Your task to perform on an android device: Open Google Chrome and open the bookmarks view Image 0: 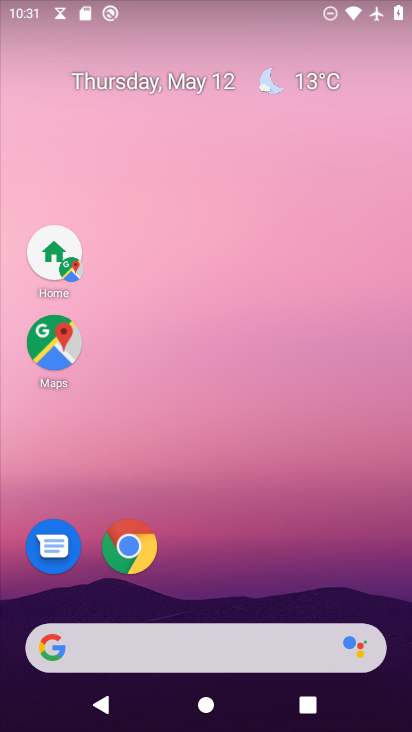
Step 0: press home button
Your task to perform on an android device: Open Google Chrome and open the bookmarks view Image 1: 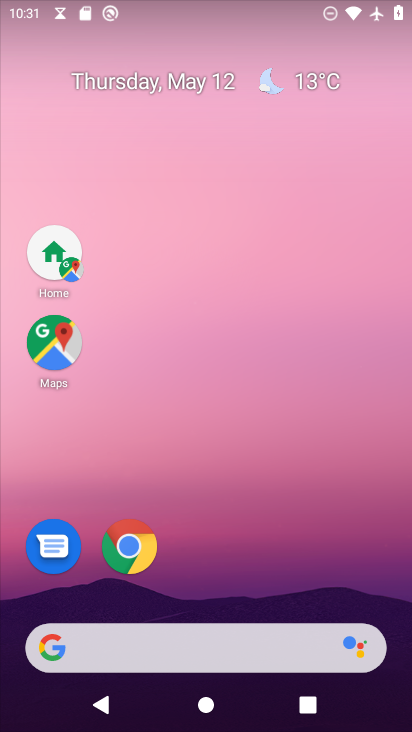
Step 1: click (131, 562)
Your task to perform on an android device: Open Google Chrome and open the bookmarks view Image 2: 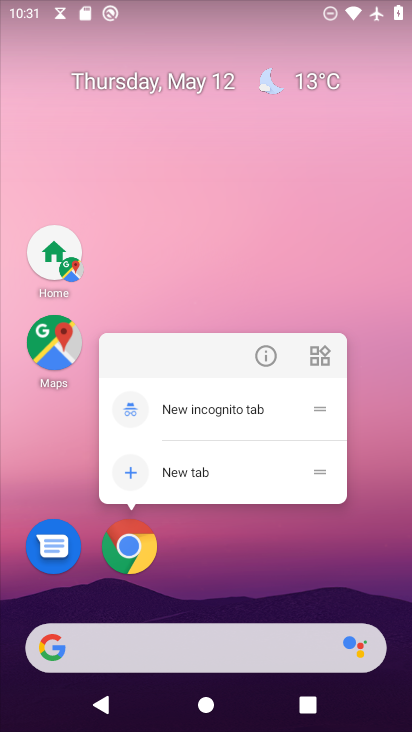
Step 2: click (129, 561)
Your task to perform on an android device: Open Google Chrome and open the bookmarks view Image 3: 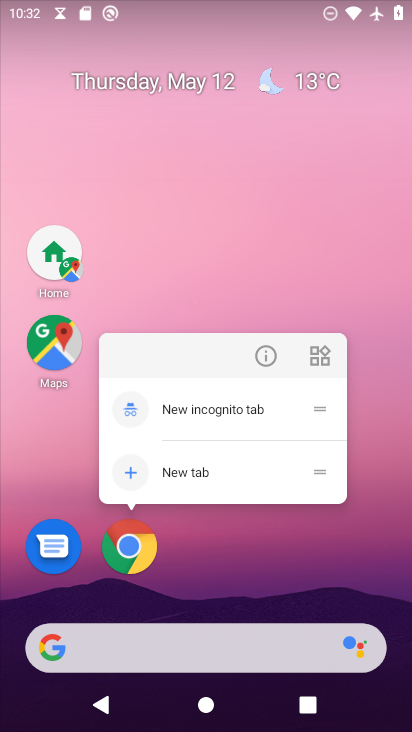
Step 3: click (129, 551)
Your task to perform on an android device: Open Google Chrome and open the bookmarks view Image 4: 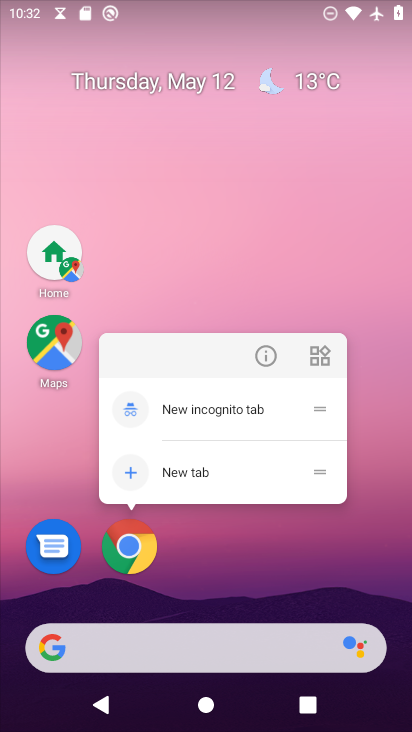
Step 4: click (136, 552)
Your task to perform on an android device: Open Google Chrome and open the bookmarks view Image 5: 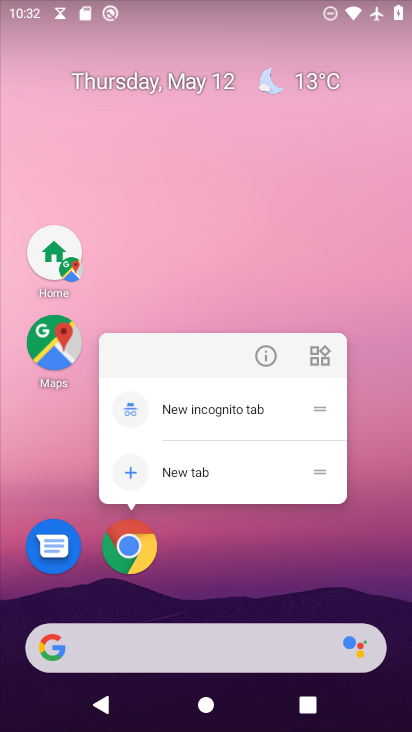
Step 5: click (136, 552)
Your task to perform on an android device: Open Google Chrome and open the bookmarks view Image 6: 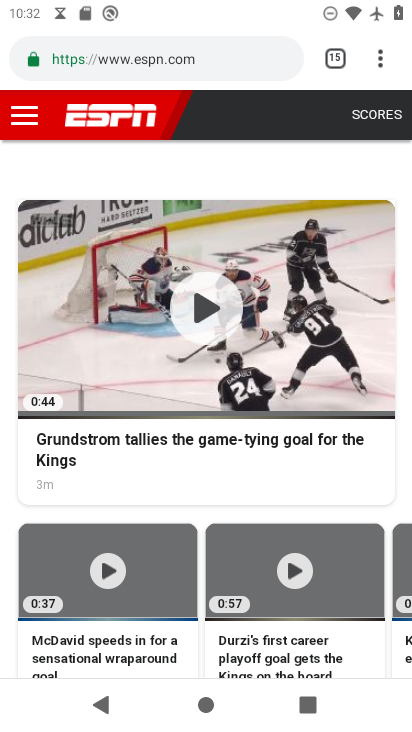
Step 6: task complete